Your task to perform on an android device: Open the stopwatch Image 0: 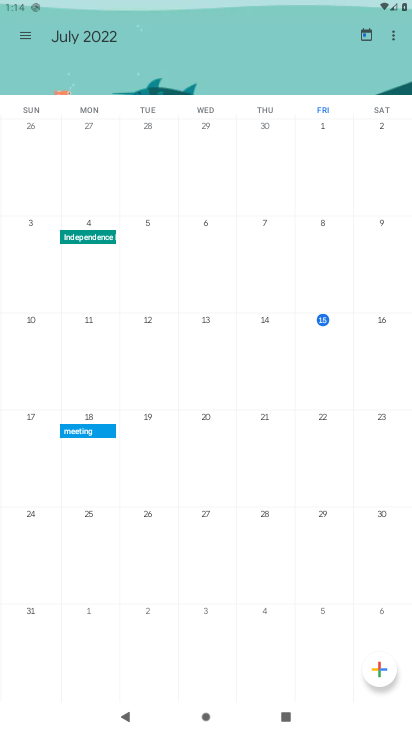
Step 0: press home button
Your task to perform on an android device: Open the stopwatch Image 1: 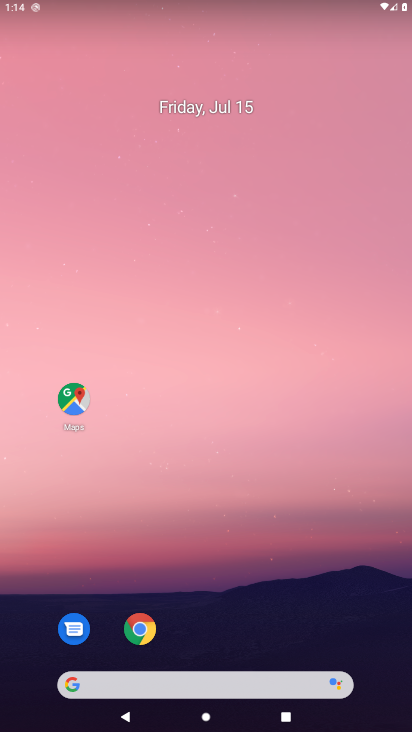
Step 1: drag from (233, 638) to (352, 2)
Your task to perform on an android device: Open the stopwatch Image 2: 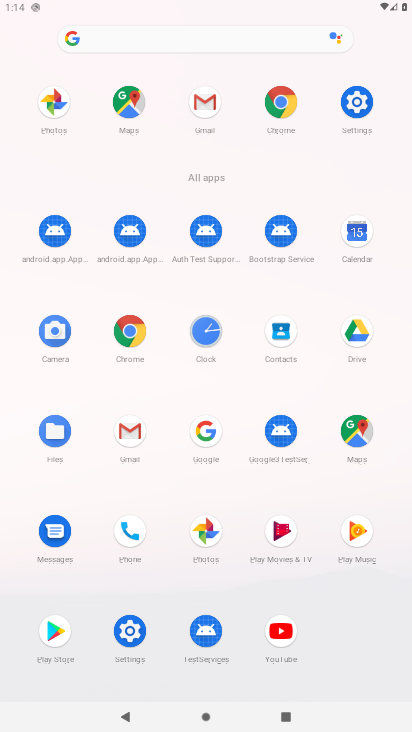
Step 2: click (188, 336)
Your task to perform on an android device: Open the stopwatch Image 3: 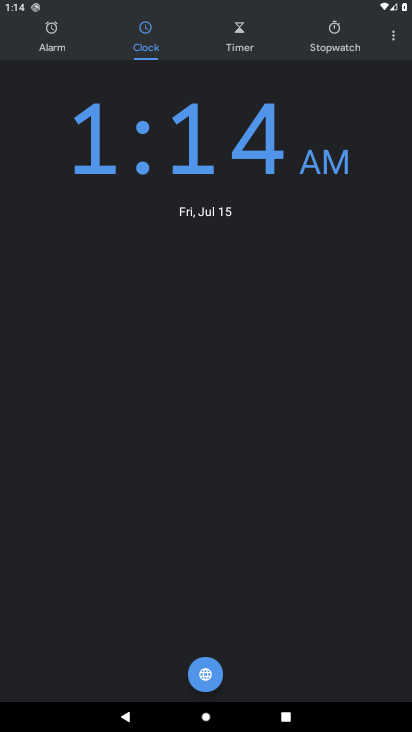
Step 3: click (316, 40)
Your task to perform on an android device: Open the stopwatch Image 4: 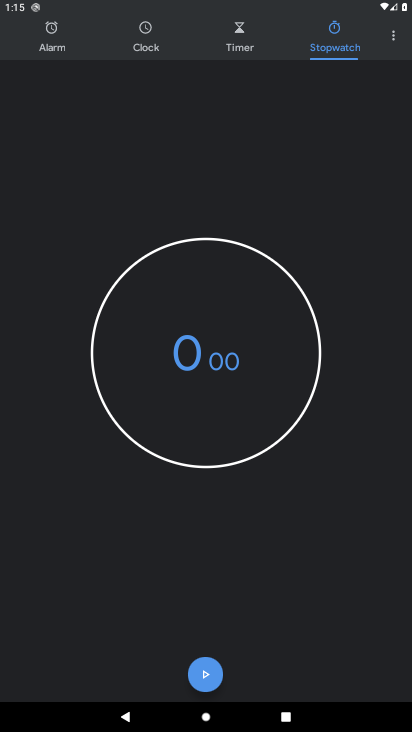
Step 4: task complete